Your task to perform on an android device: Open Yahoo.com Image 0: 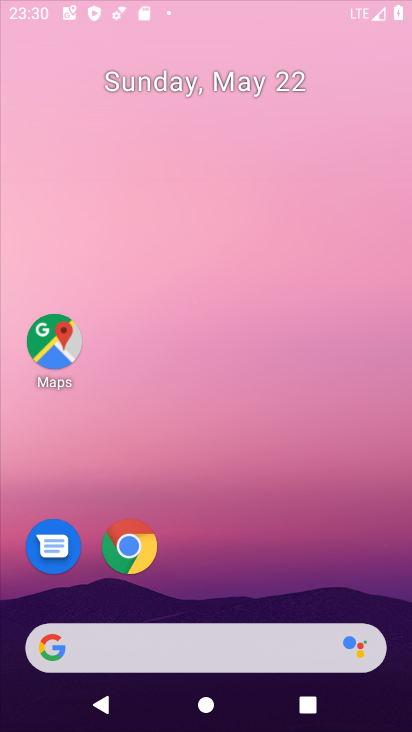
Step 0: click (203, 211)
Your task to perform on an android device: Open Yahoo.com Image 1: 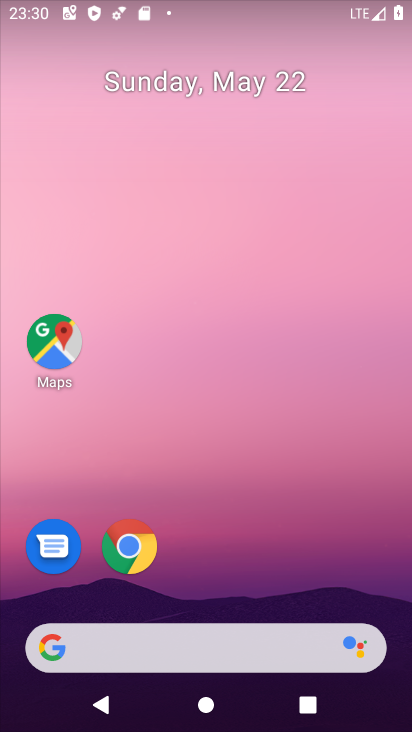
Step 1: drag from (199, 602) to (232, 198)
Your task to perform on an android device: Open Yahoo.com Image 2: 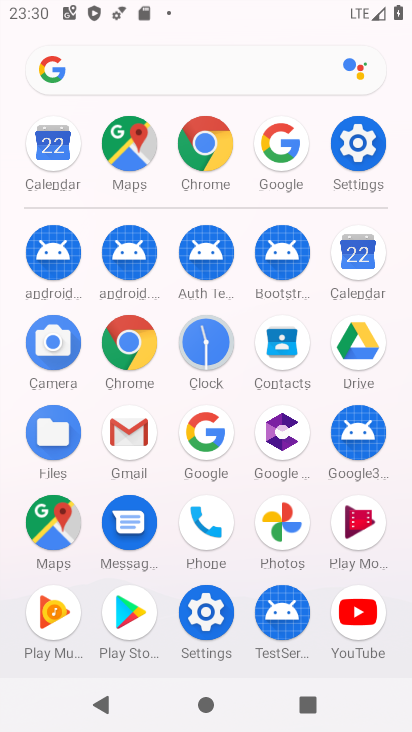
Step 2: click (166, 66)
Your task to perform on an android device: Open Yahoo.com Image 3: 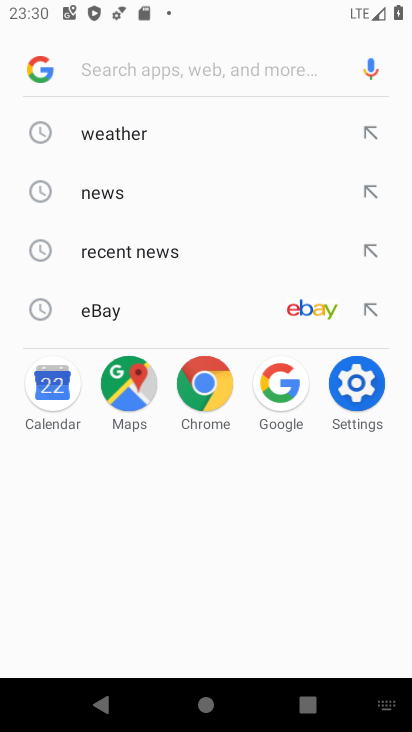
Step 3: type "yahoo.com"
Your task to perform on an android device: Open Yahoo.com Image 4: 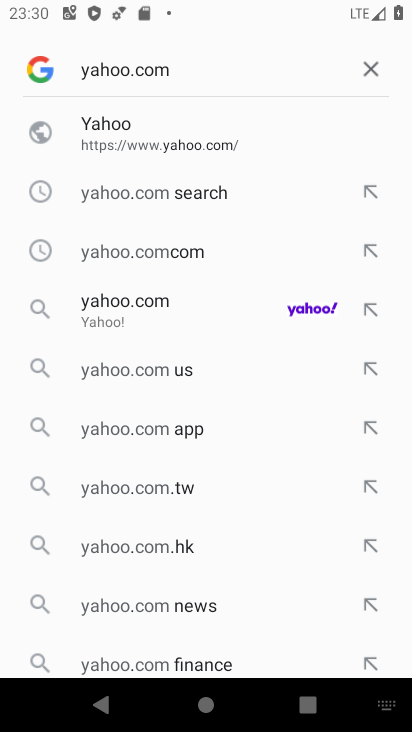
Step 4: click (166, 131)
Your task to perform on an android device: Open Yahoo.com Image 5: 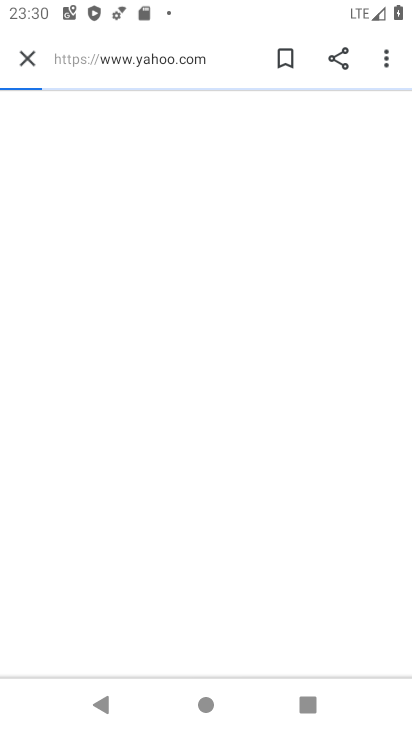
Step 5: task complete